Your task to perform on an android device: Show me productivity apps on the Play Store Image 0: 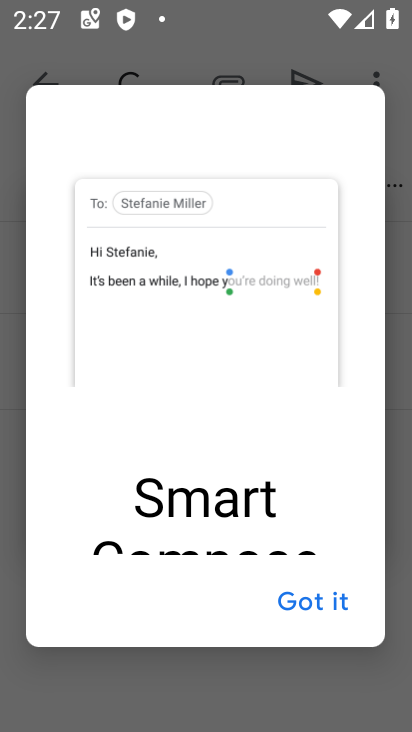
Step 0: press home button
Your task to perform on an android device: Show me productivity apps on the Play Store Image 1: 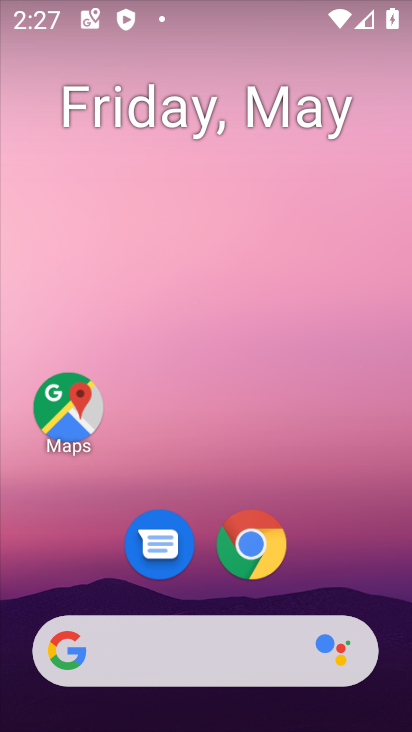
Step 1: drag from (215, 570) to (244, 206)
Your task to perform on an android device: Show me productivity apps on the Play Store Image 2: 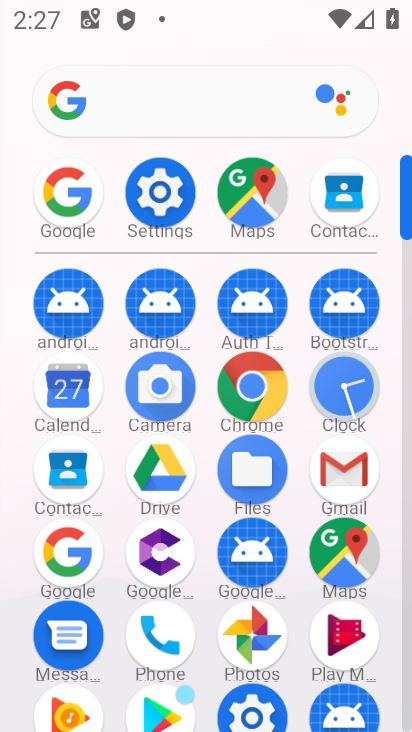
Step 2: drag from (212, 609) to (219, 313)
Your task to perform on an android device: Show me productivity apps on the Play Store Image 3: 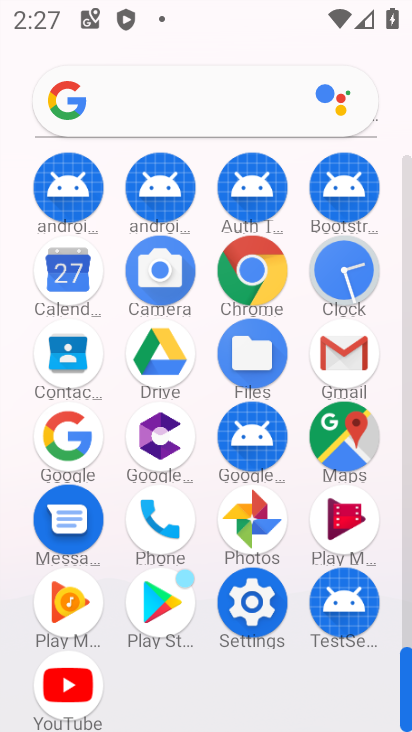
Step 3: click (178, 577)
Your task to perform on an android device: Show me productivity apps on the Play Store Image 4: 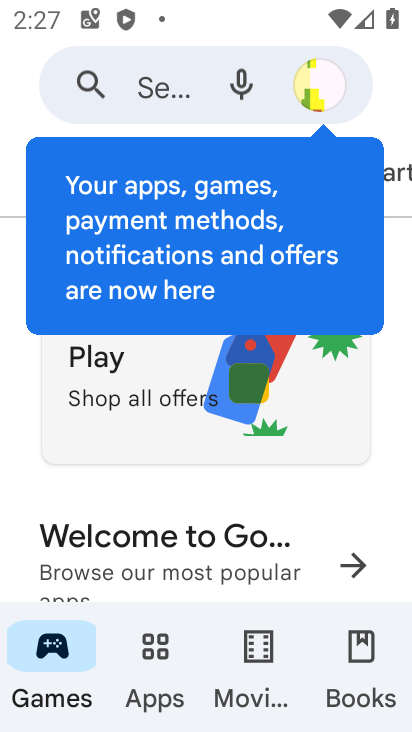
Step 4: click (163, 646)
Your task to perform on an android device: Show me productivity apps on the Play Store Image 5: 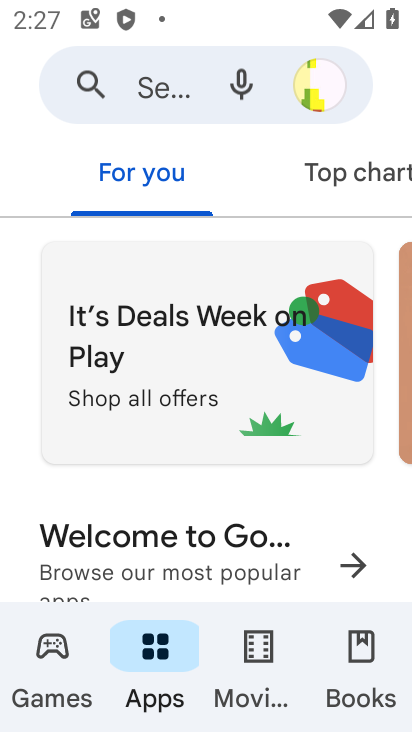
Step 5: drag from (375, 176) to (63, 177)
Your task to perform on an android device: Show me productivity apps on the Play Store Image 6: 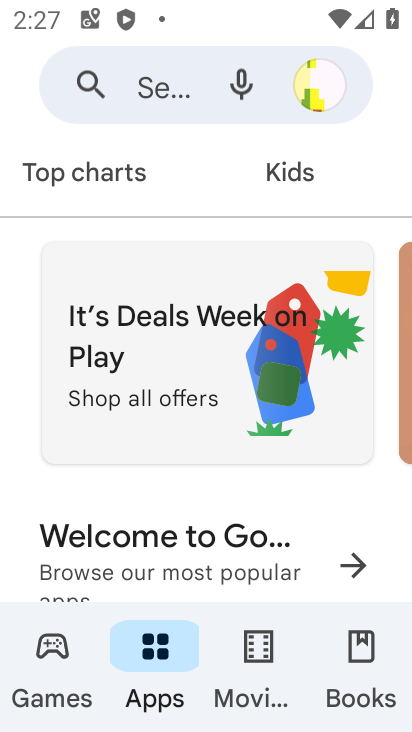
Step 6: drag from (345, 159) to (196, 171)
Your task to perform on an android device: Show me productivity apps on the Play Store Image 7: 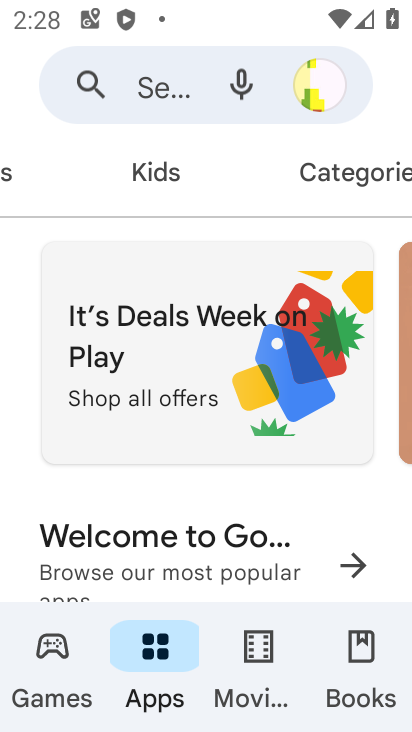
Step 7: click (319, 167)
Your task to perform on an android device: Show me productivity apps on the Play Store Image 8: 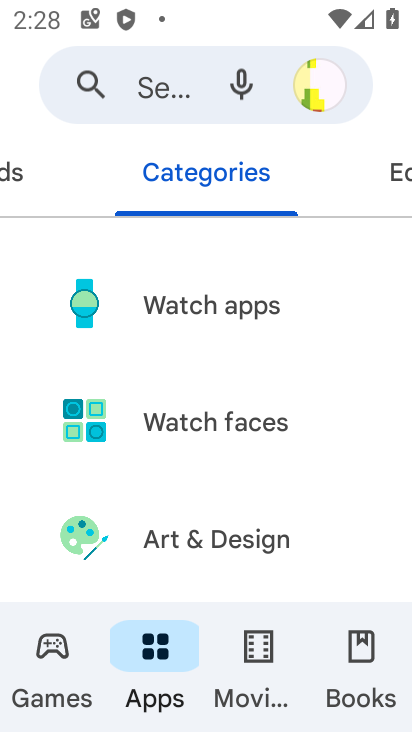
Step 8: drag from (230, 520) to (247, 283)
Your task to perform on an android device: Show me productivity apps on the Play Store Image 9: 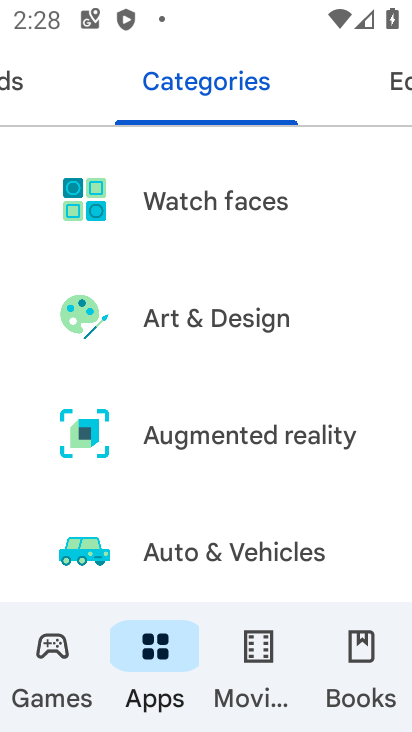
Step 9: drag from (245, 525) to (236, 317)
Your task to perform on an android device: Show me productivity apps on the Play Store Image 10: 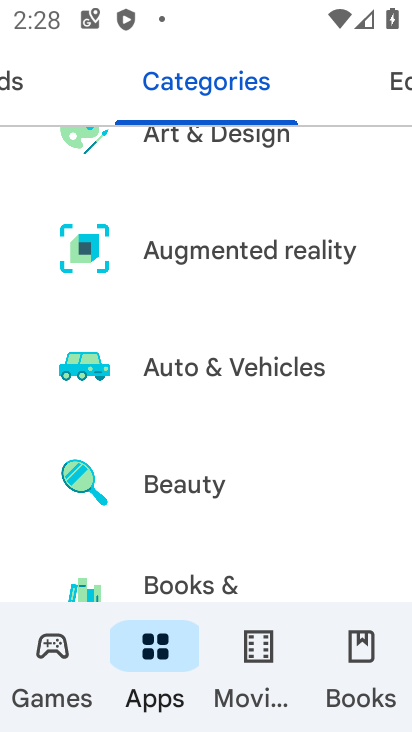
Step 10: drag from (207, 509) to (216, 264)
Your task to perform on an android device: Show me productivity apps on the Play Store Image 11: 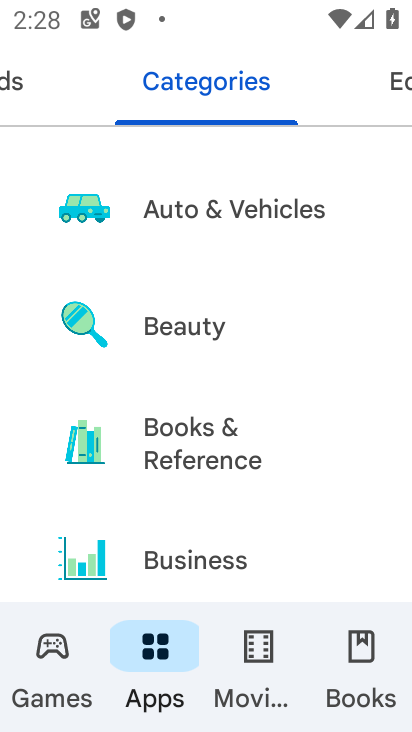
Step 11: drag from (245, 528) to (252, 358)
Your task to perform on an android device: Show me productivity apps on the Play Store Image 12: 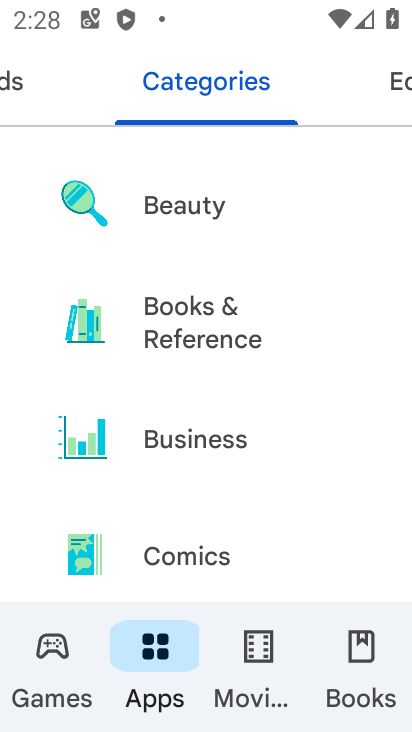
Step 12: drag from (248, 545) to (252, 273)
Your task to perform on an android device: Show me productivity apps on the Play Store Image 13: 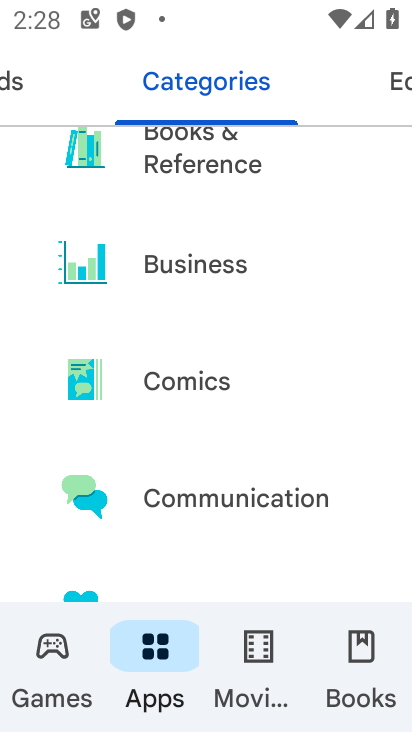
Step 13: drag from (250, 576) to (259, 267)
Your task to perform on an android device: Show me productivity apps on the Play Store Image 14: 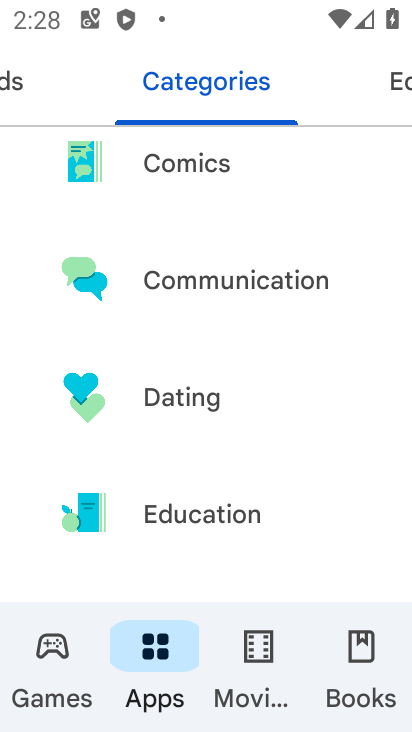
Step 14: drag from (242, 531) to (259, 289)
Your task to perform on an android device: Show me productivity apps on the Play Store Image 15: 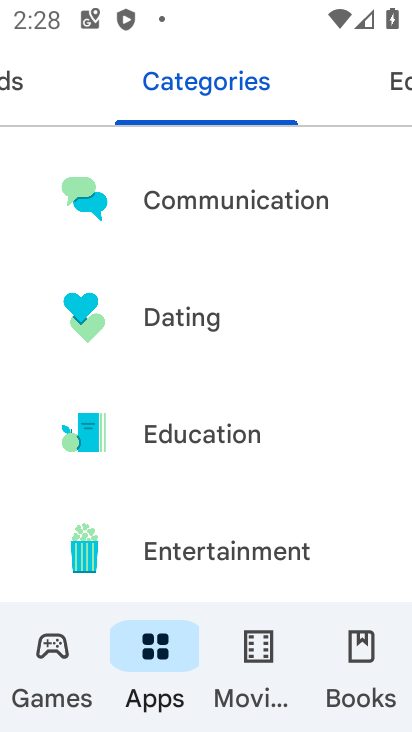
Step 15: drag from (255, 447) to (271, 281)
Your task to perform on an android device: Show me productivity apps on the Play Store Image 16: 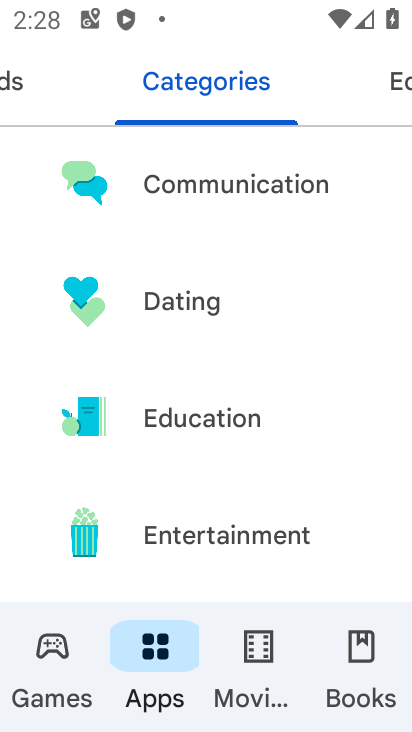
Step 16: drag from (267, 523) to (282, 278)
Your task to perform on an android device: Show me productivity apps on the Play Store Image 17: 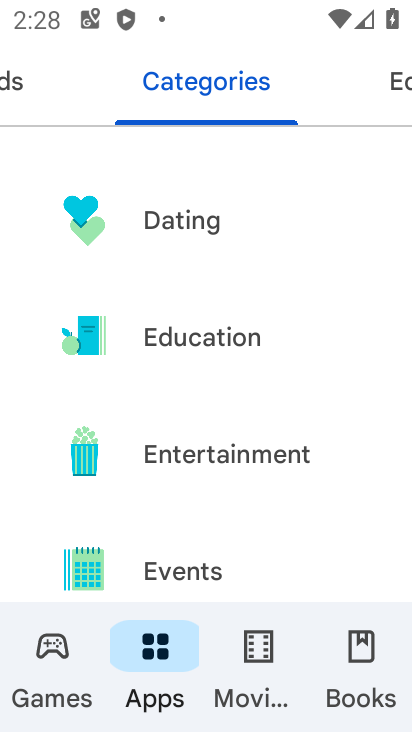
Step 17: drag from (271, 541) to (275, 315)
Your task to perform on an android device: Show me productivity apps on the Play Store Image 18: 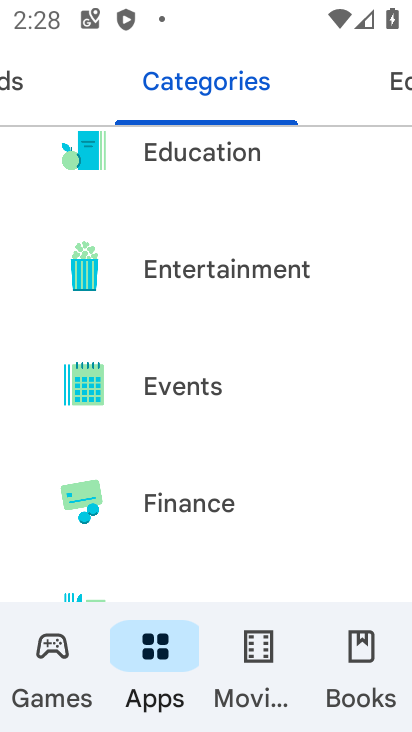
Step 18: drag from (258, 512) to (283, 282)
Your task to perform on an android device: Show me productivity apps on the Play Store Image 19: 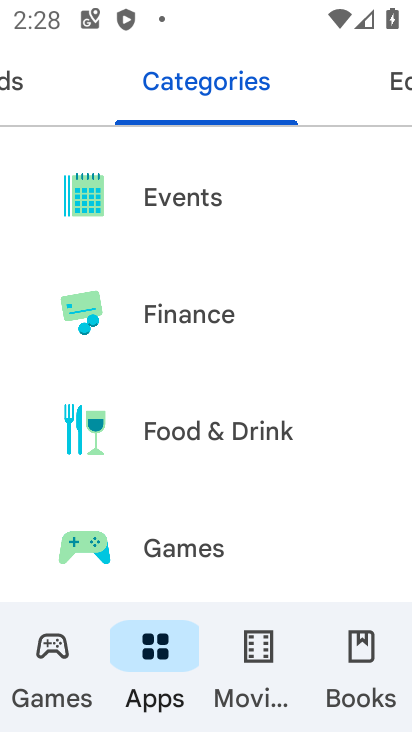
Step 19: drag from (281, 548) to (286, 123)
Your task to perform on an android device: Show me productivity apps on the Play Store Image 20: 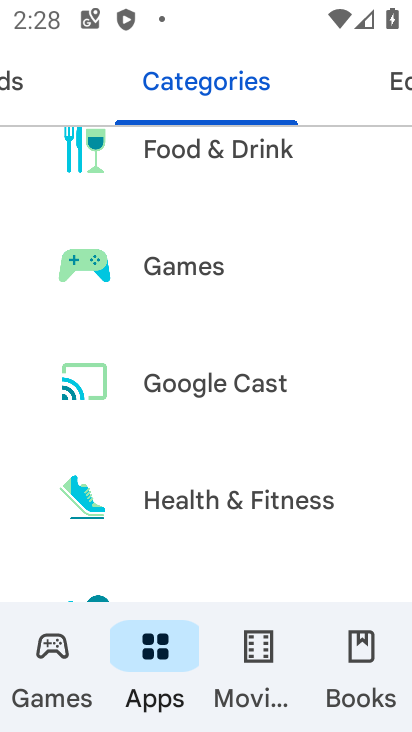
Step 20: drag from (250, 472) to (281, 203)
Your task to perform on an android device: Show me productivity apps on the Play Store Image 21: 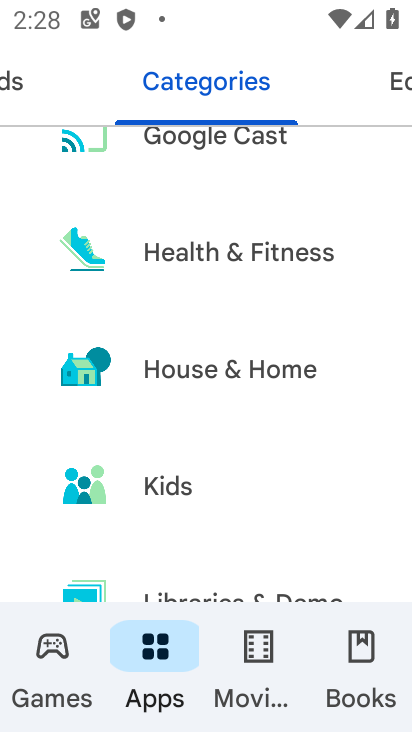
Step 21: drag from (290, 476) to (307, 204)
Your task to perform on an android device: Show me productivity apps on the Play Store Image 22: 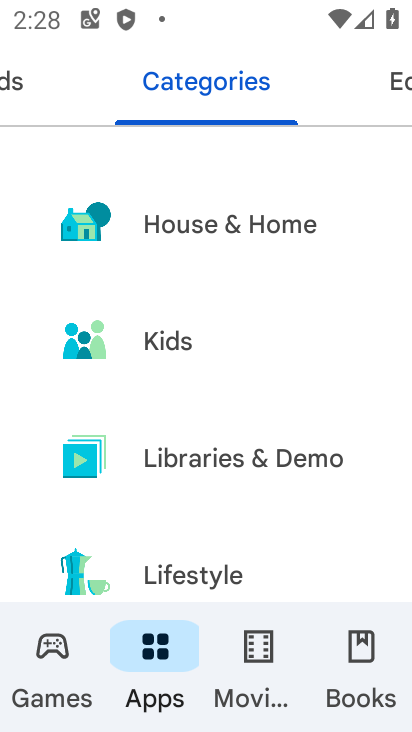
Step 22: drag from (260, 474) to (288, 224)
Your task to perform on an android device: Show me productivity apps on the Play Store Image 23: 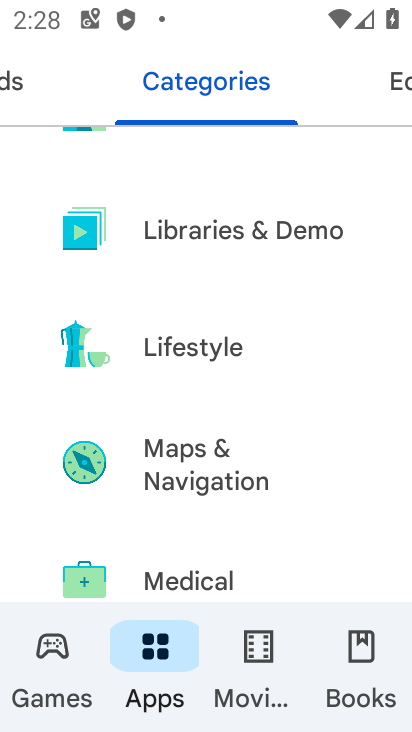
Step 23: drag from (283, 512) to (292, 215)
Your task to perform on an android device: Show me productivity apps on the Play Store Image 24: 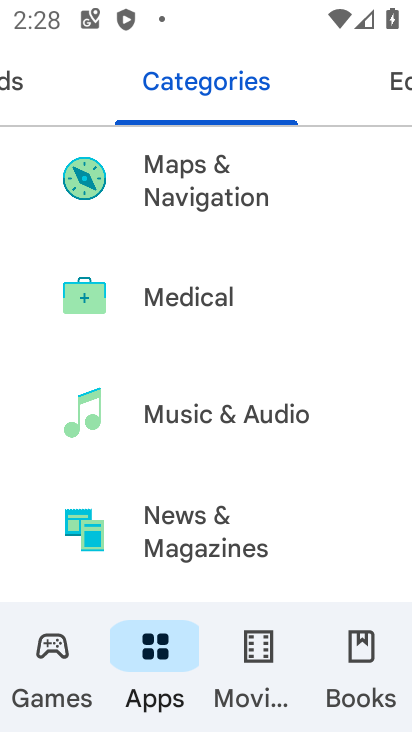
Step 24: drag from (267, 531) to (286, 201)
Your task to perform on an android device: Show me productivity apps on the Play Store Image 25: 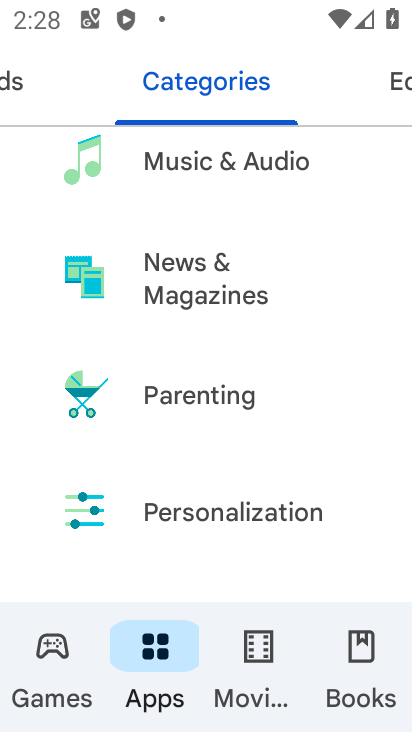
Step 25: drag from (256, 525) to (268, 261)
Your task to perform on an android device: Show me productivity apps on the Play Store Image 26: 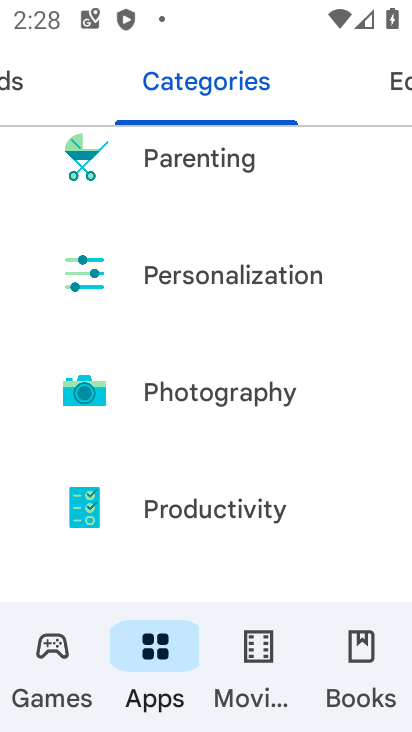
Step 26: click (239, 503)
Your task to perform on an android device: Show me productivity apps on the Play Store Image 27: 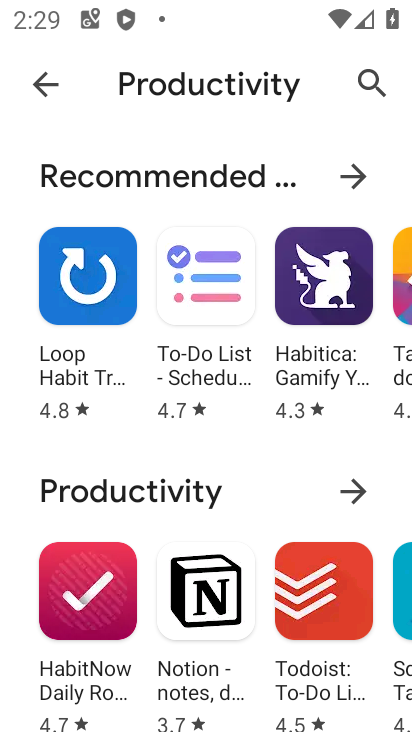
Step 27: task complete